Your task to perform on an android device: Show me recent news Image 0: 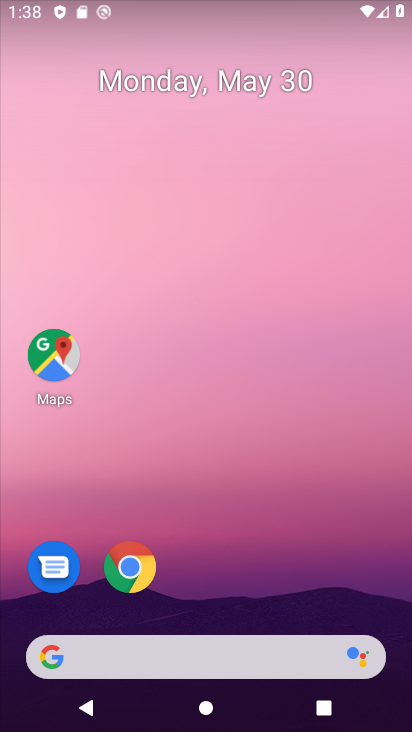
Step 0: click (142, 563)
Your task to perform on an android device: Show me recent news Image 1: 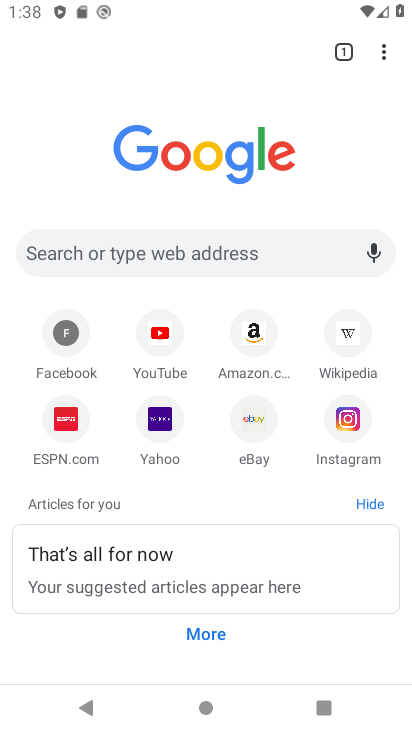
Step 1: click (235, 245)
Your task to perform on an android device: Show me recent news Image 2: 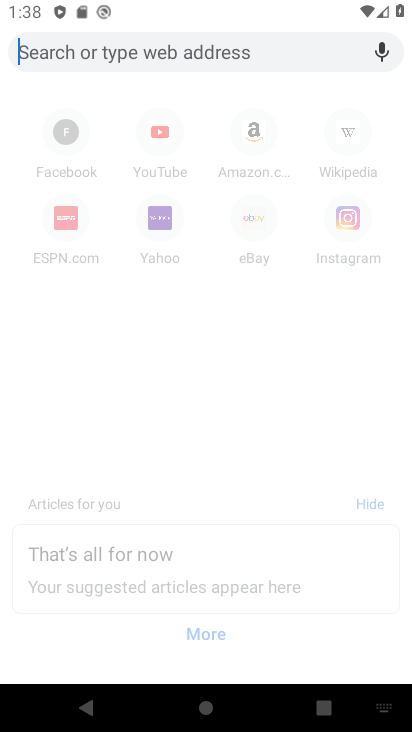
Step 2: type "Show me recent news"
Your task to perform on an android device: Show me recent news Image 3: 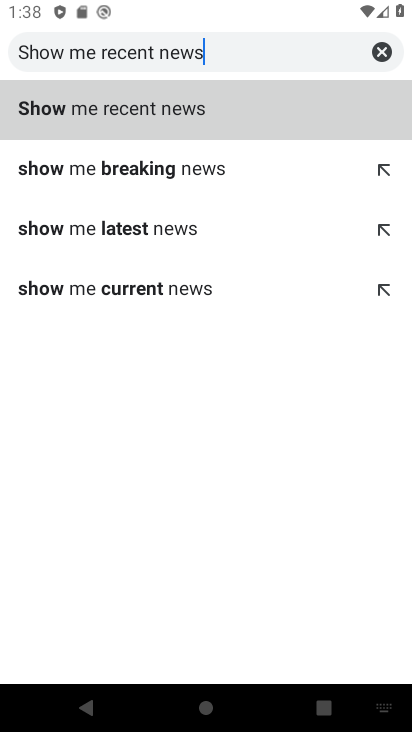
Step 3: click (183, 103)
Your task to perform on an android device: Show me recent news Image 4: 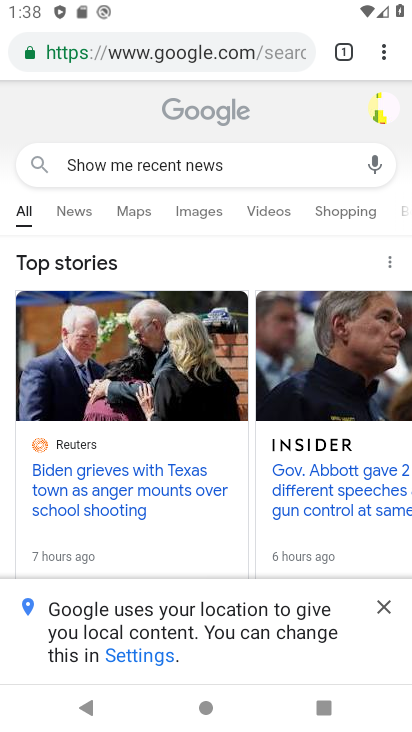
Step 4: task complete